Your task to perform on an android device: find snoozed emails in the gmail app Image 0: 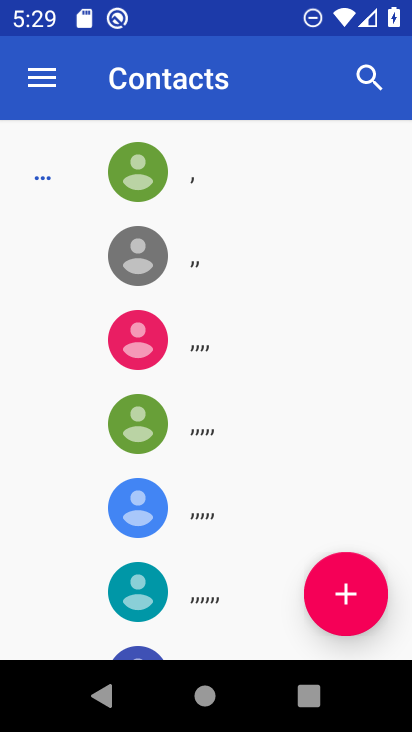
Step 0: press home button
Your task to perform on an android device: find snoozed emails in the gmail app Image 1: 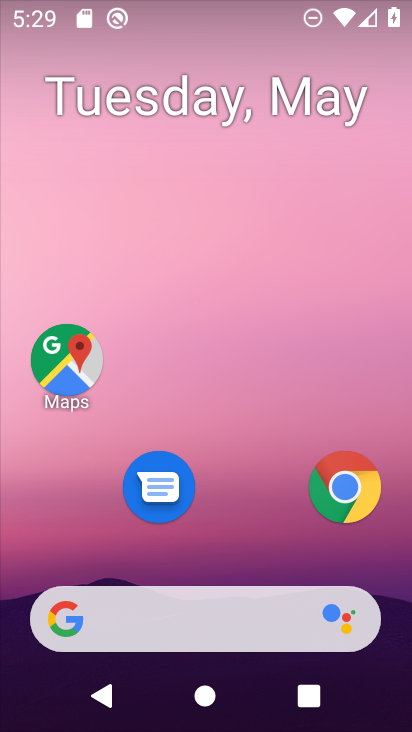
Step 1: drag from (241, 544) to (211, 228)
Your task to perform on an android device: find snoozed emails in the gmail app Image 2: 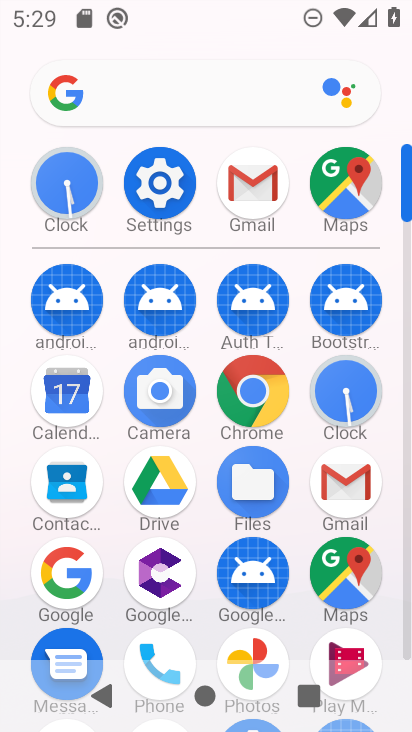
Step 2: click (249, 212)
Your task to perform on an android device: find snoozed emails in the gmail app Image 3: 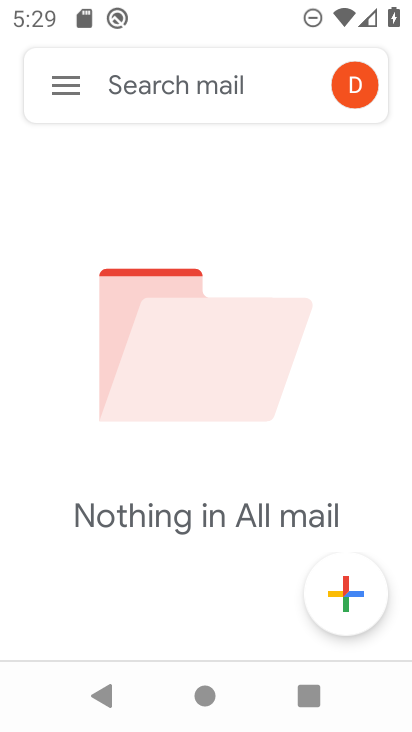
Step 3: click (59, 102)
Your task to perform on an android device: find snoozed emails in the gmail app Image 4: 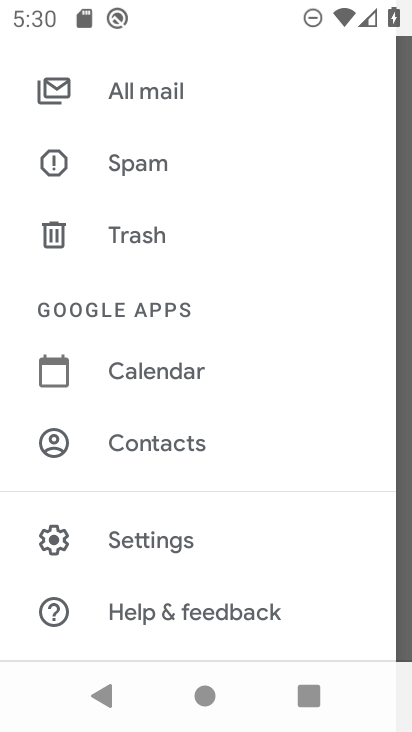
Step 4: drag from (128, 194) to (145, 632)
Your task to perform on an android device: find snoozed emails in the gmail app Image 5: 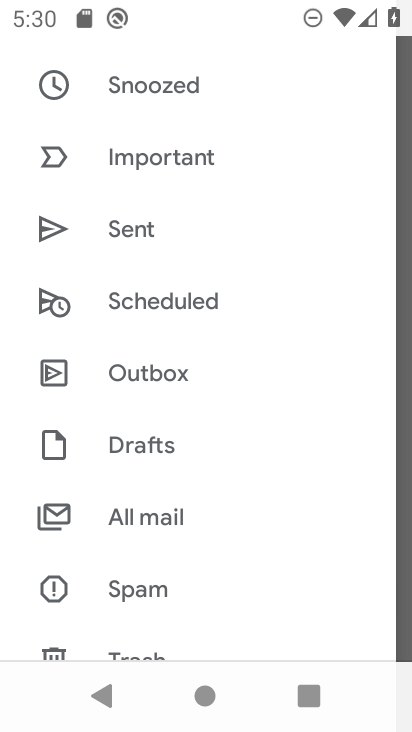
Step 5: click (127, 95)
Your task to perform on an android device: find snoozed emails in the gmail app Image 6: 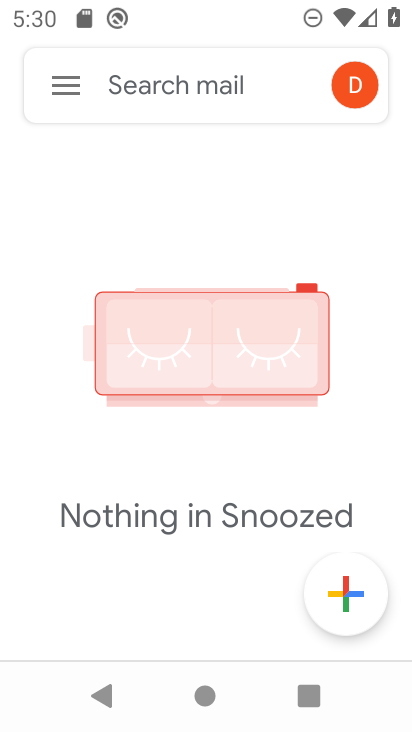
Step 6: task complete